Your task to perform on an android device: add a label to a message in the gmail app Image 0: 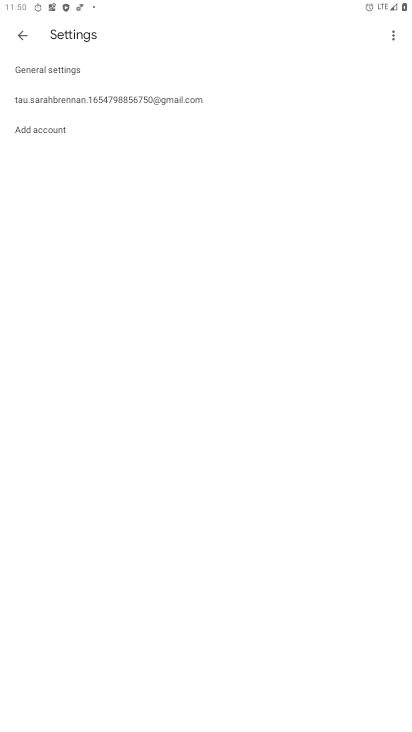
Step 0: press home button
Your task to perform on an android device: add a label to a message in the gmail app Image 1: 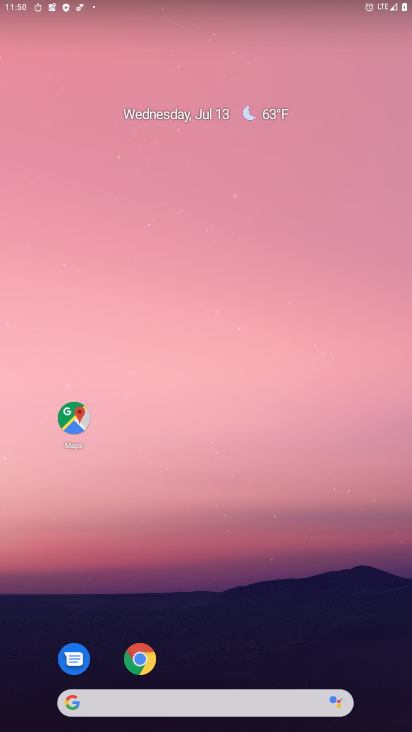
Step 1: drag from (311, 647) to (267, 108)
Your task to perform on an android device: add a label to a message in the gmail app Image 2: 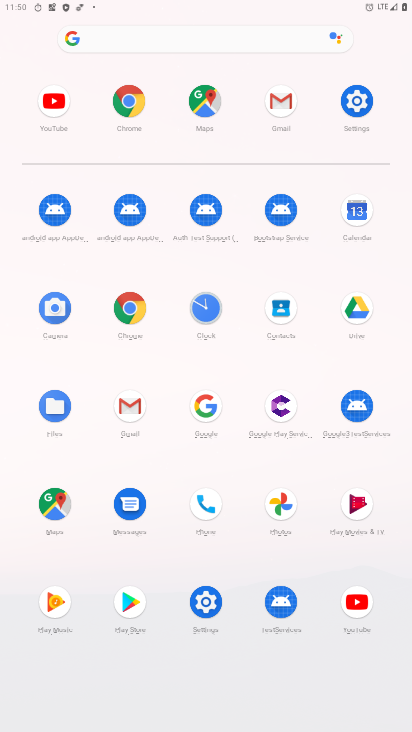
Step 2: click (285, 102)
Your task to perform on an android device: add a label to a message in the gmail app Image 3: 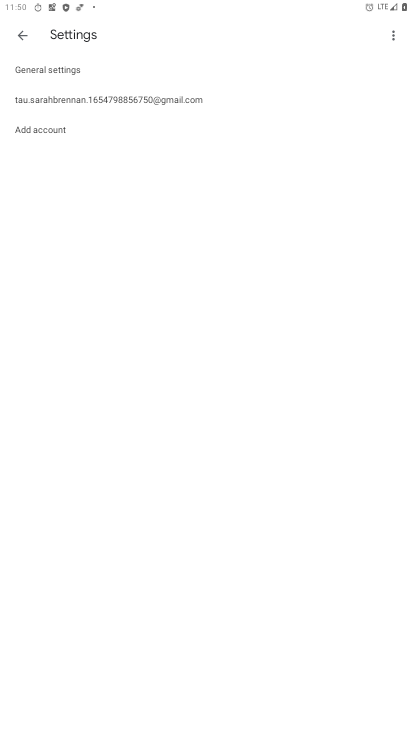
Step 3: click (18, 34)
Your task to perform on an android device: add a label to a message in the gmail app Image 4: 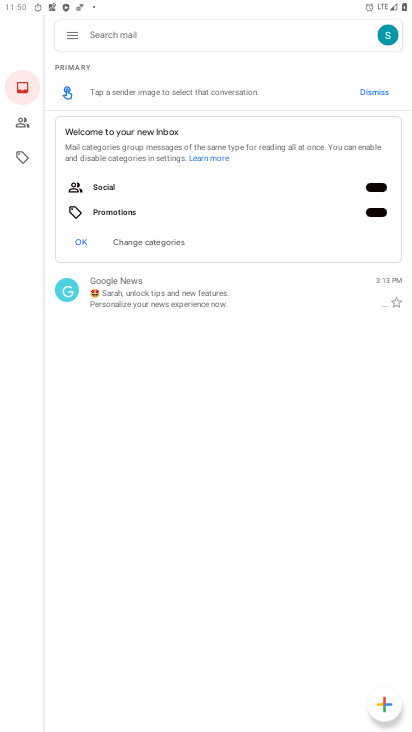
Step 4: click (193, 295)
Your task to perform on an android device: add a label to a message in the gmail app Image 5: 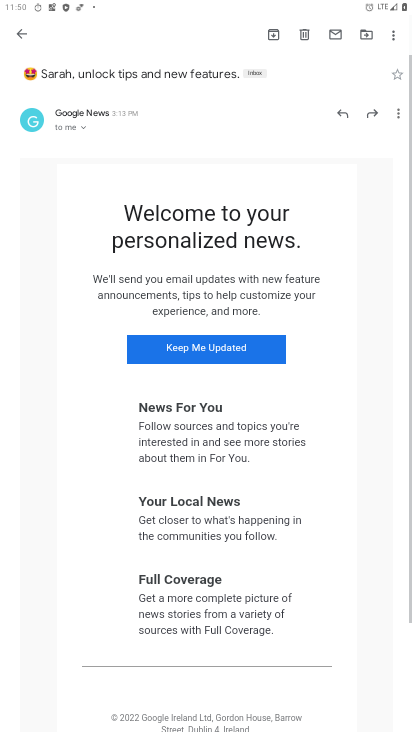
Step 5: click (392, 32)
Your task to perform on an android device: add a label to a message in the gmail app Image 6: 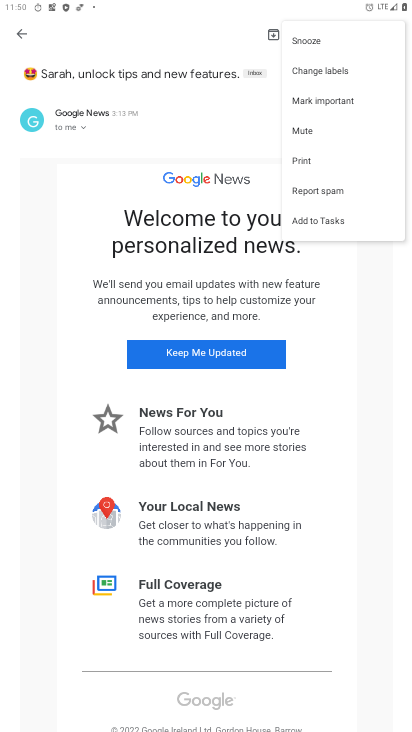
Step 6: click (342, 70)
Your task to perform on an android device: add a label to a message in the gmail app Image 7: 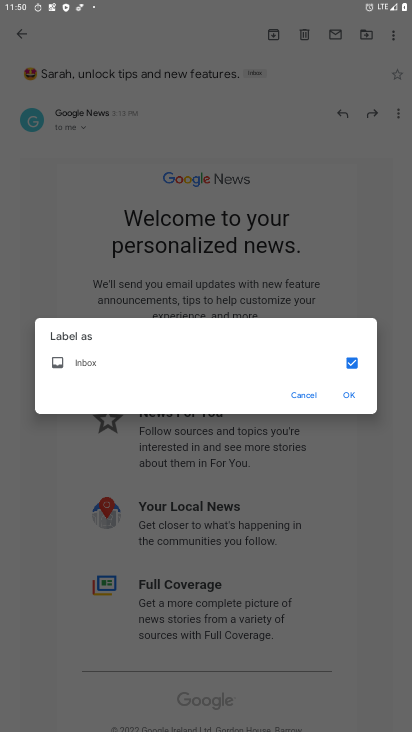
Step 7: task complete